Your task to perform on an android device: turn off location history Image 0: 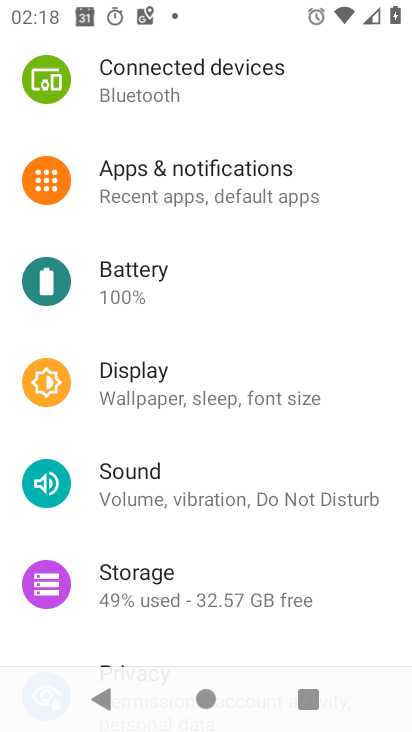
Step 0: drag from (182, 629) to (168, 272)
Your task to perform on an android device: turn off location history Image 1: 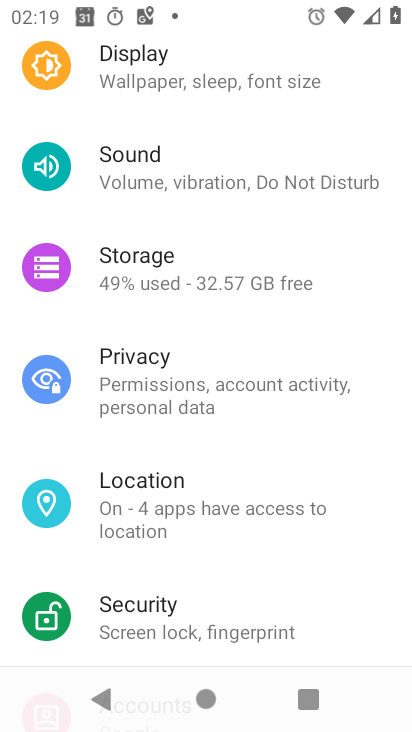
Step 1: click (147, 508)
Your task to perform on an android device: turn off location history Image 2: 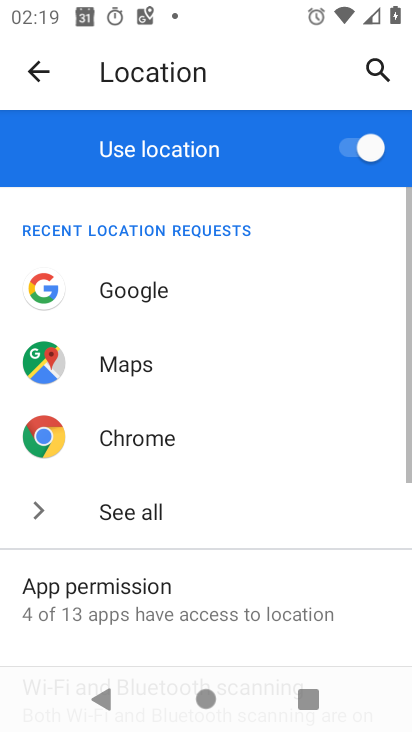
Step 2: drag from (189, 642) to (178, 325)
Your task to perform on an android device: turn off location history Image 3: 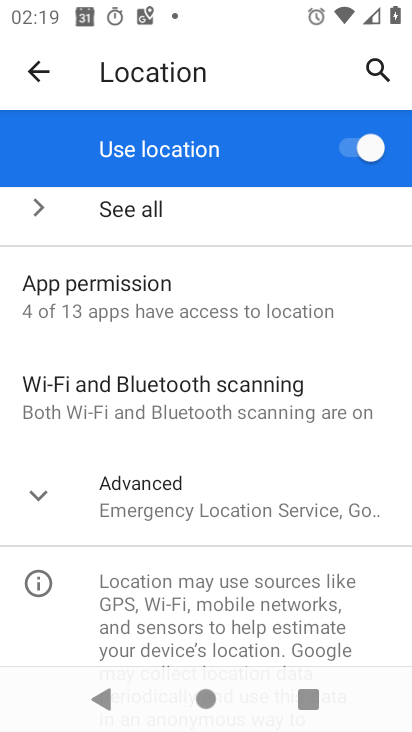
Step 3: click (154, 508)
Your task to perform on an android device: turn off location history Image 4: 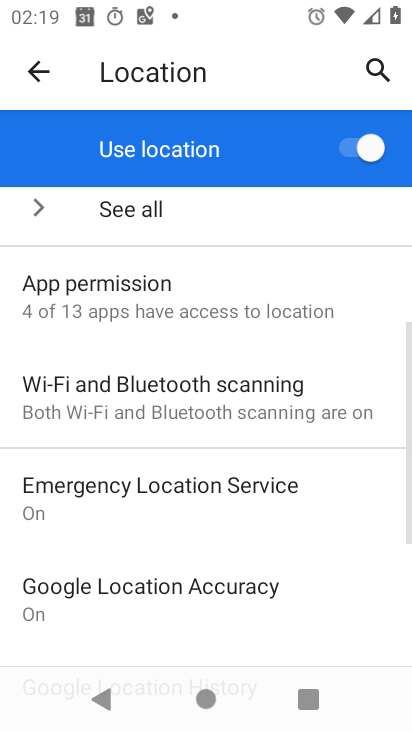
Step 4: drag from (258, 630) to (256, 314)
Your task to perform on an android device: turn off location history Image 5: 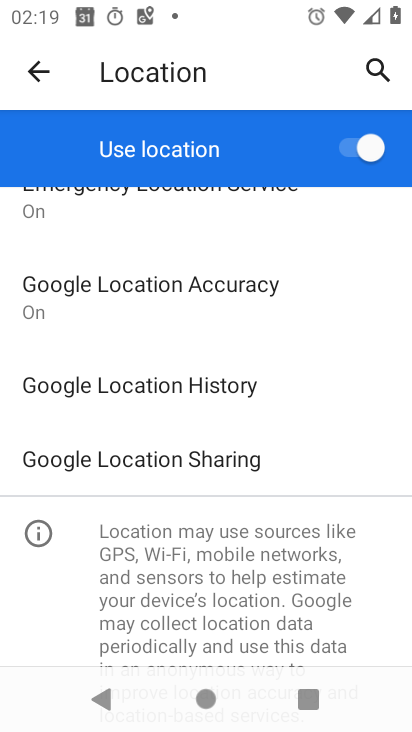
Step 5: click (176, 386)
Your task to perform on an android device: turn off location history Image 6: 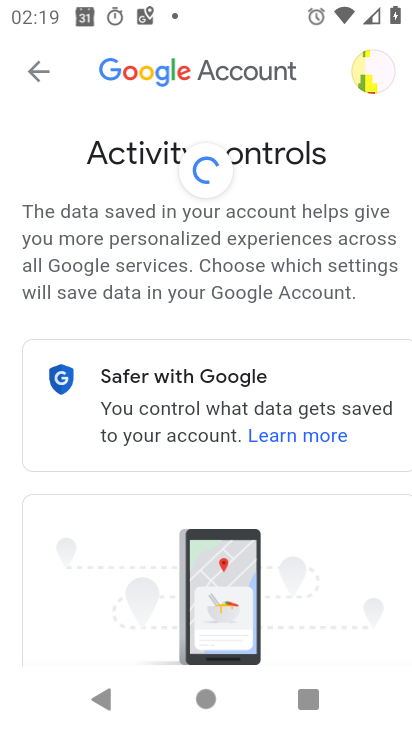
Step 6: drag from (234, 604) to (236, 190)
Your task to perform on an android device: turn off location history Image 7: 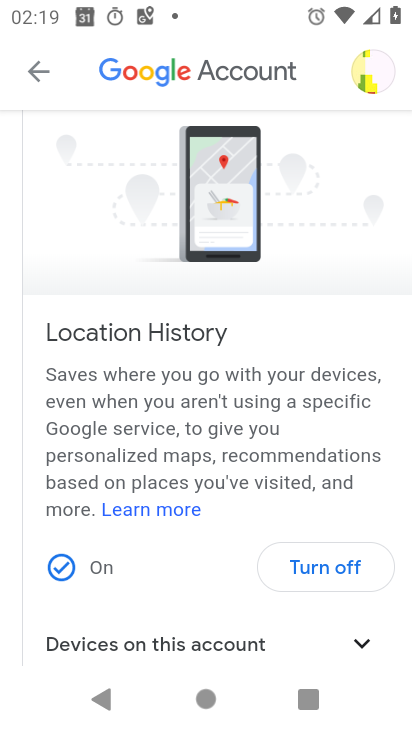
Step 7: drag from (279, 610) to (257, 355)
Your task to perform on an android device: turn off location history Image 8: 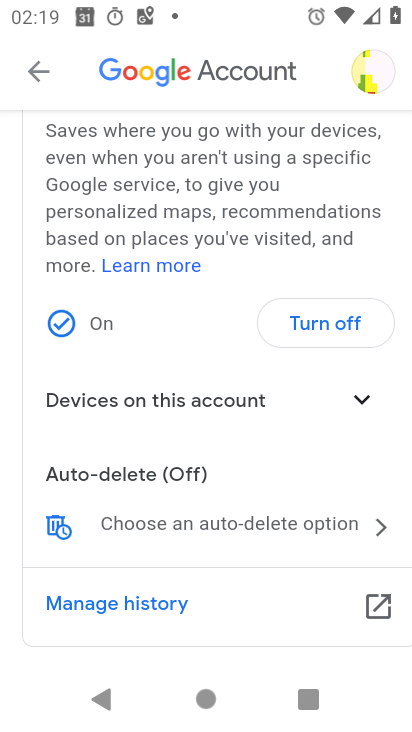
Step 8: click (313, 321)
Your task to perform on an android device: turn off location history Image 9: 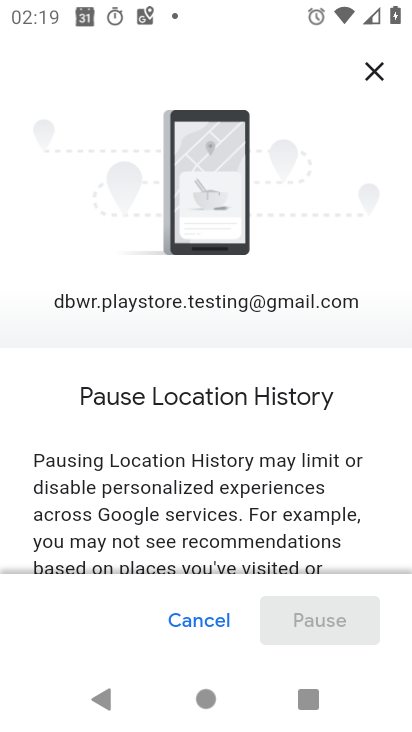
Step 9: click (231, 524)
Your task to perform on an android device: turn off location history Image 10: 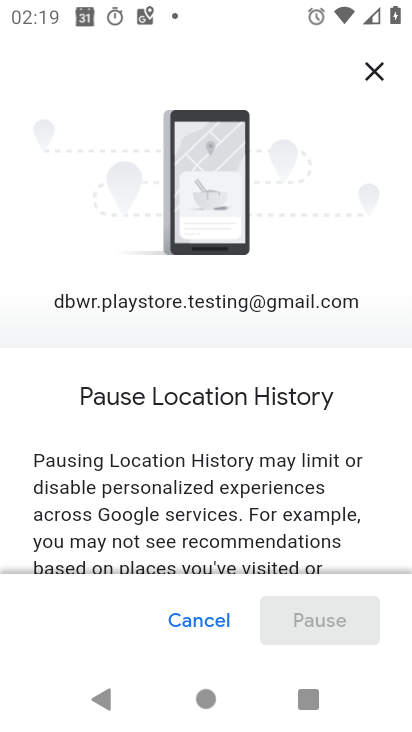
Step 10: drag from (225, 543) to (219, 214)
Your task to perform on an android device: turn off location history Image 11: 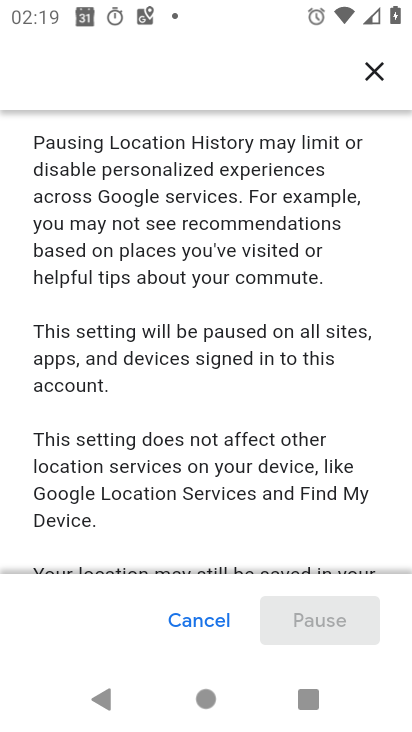
Step 11: drag from (254, 551) to (254, 212)
Your task to perform on an android device: turn off location history Image 12: 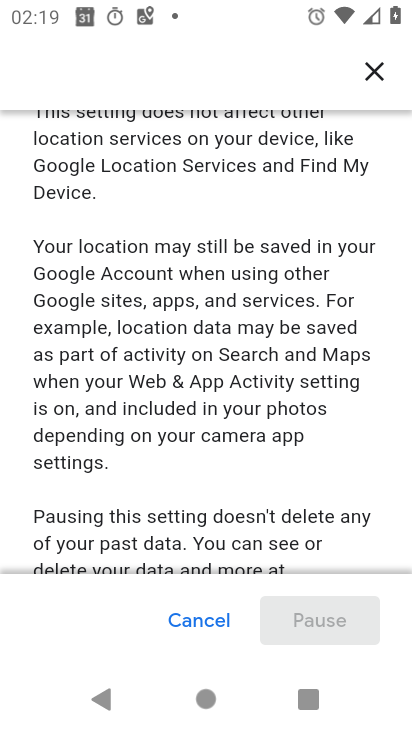
Step 12: drag from (258, 537) to (259, 121)
Your task to perform on an android device: turn off location history Image 13: 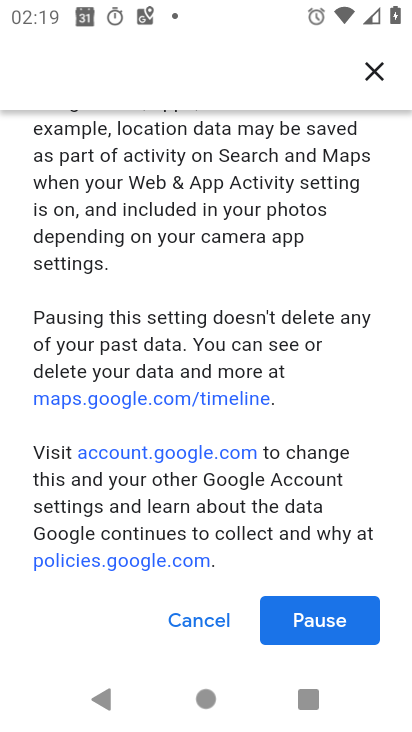
Step 13: click (312, 624)
Your task to perform on an android device: turn off location history Image 14: 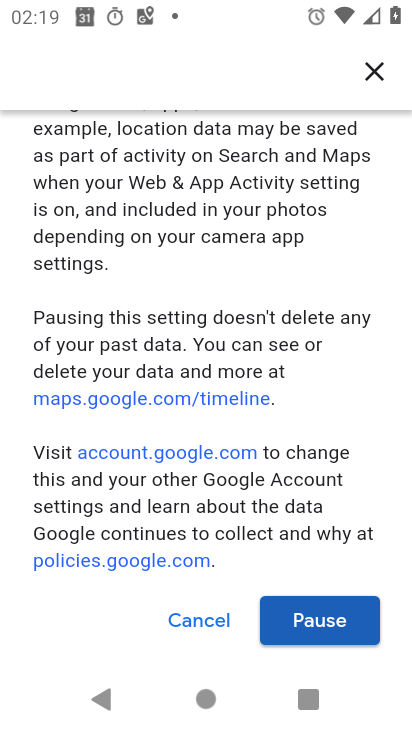
Step 14: click (311, 623)
Your task to perform on an android device: turn off location history Image 15: 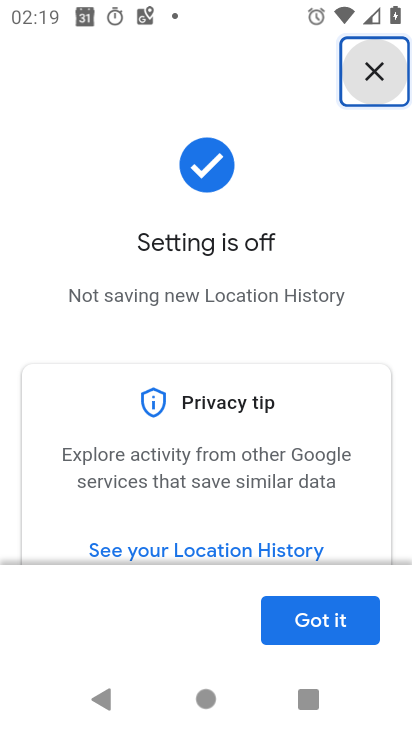
Step 15: click (310, 624)
Your task to perform on an android device: turn off location history Image 16: 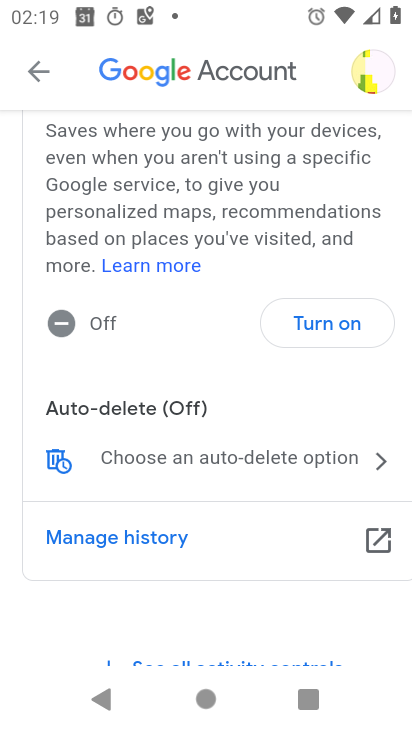
Step 16: task complete